Your task to perform on an android device: toggle notifications settings in the gmail app Image 0: 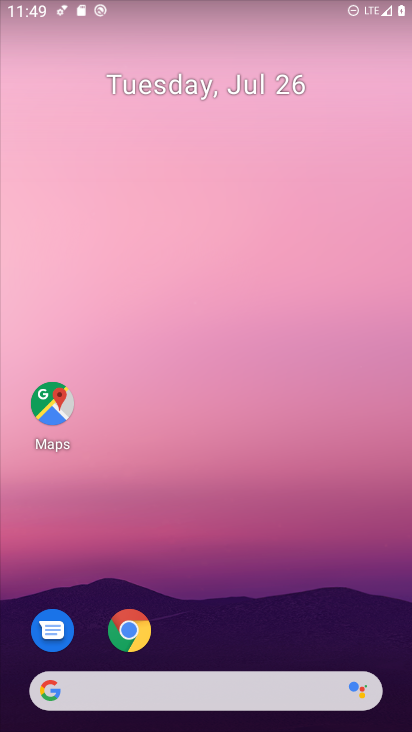
Step 0: drag from (386, 644) to (325, 111)
Your task to perform on an android device: toggle notifications settings in the gmail app Image 1: 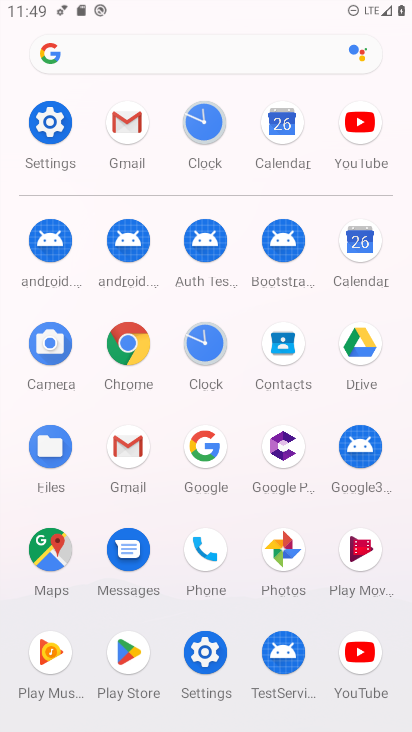
Step 1: click (128, 447)
Your task to perform on an android device: toggle notifications settings in the gmail app Image 2: 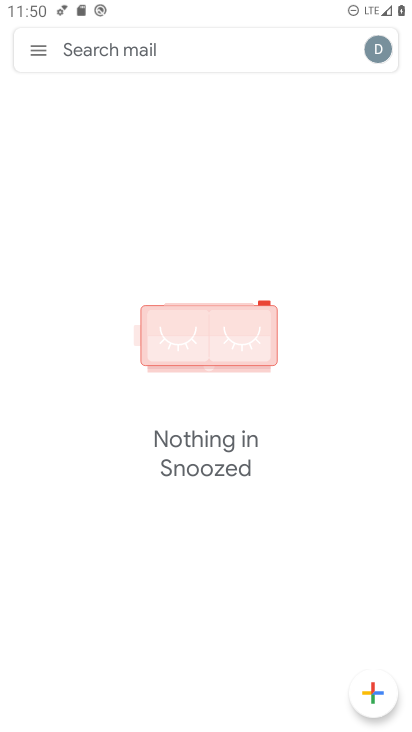
Step 2: click (37, 51)
Your task to perform on an android device: toggle notifications settings in the gmail app Image 3: 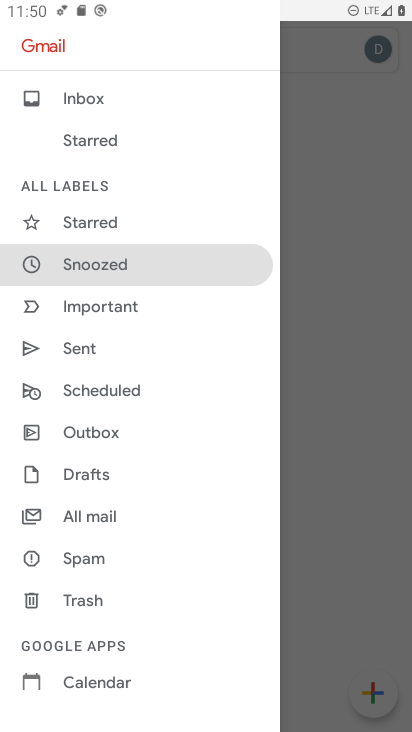
Step 3: drag from (165, 649) to (170, 336)
Your task to perform on an android device: toggle notifications settings in the gmail app Image 4: 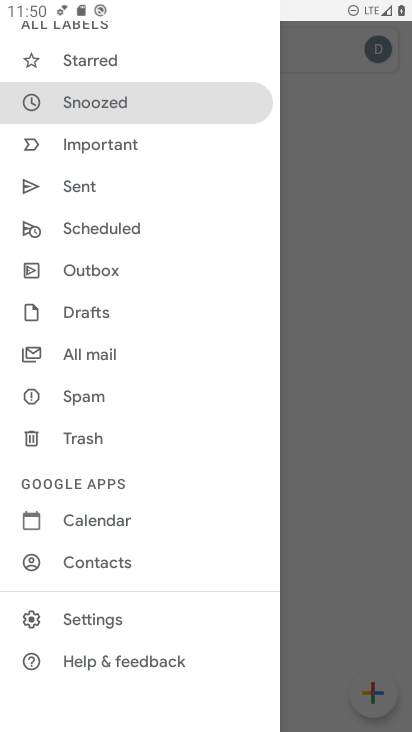
Step 4: click (95, 616)
Your task to perform on an android device: toggle notifications settings in the gmail app Image 5: 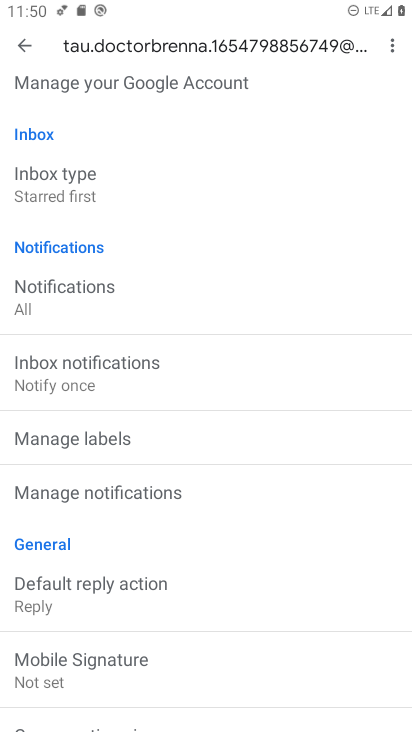
Step 5: click (87, 493)
Your task to perform on an android device: toggle notifications settings in the gmail app Image 6: 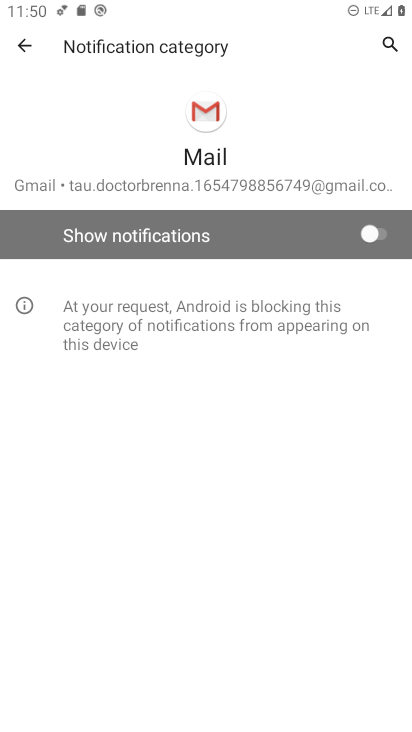
Step 6: click (380, 233)
Your task to perform on an android device: toggle notifications settings in the gmail app Image 7: 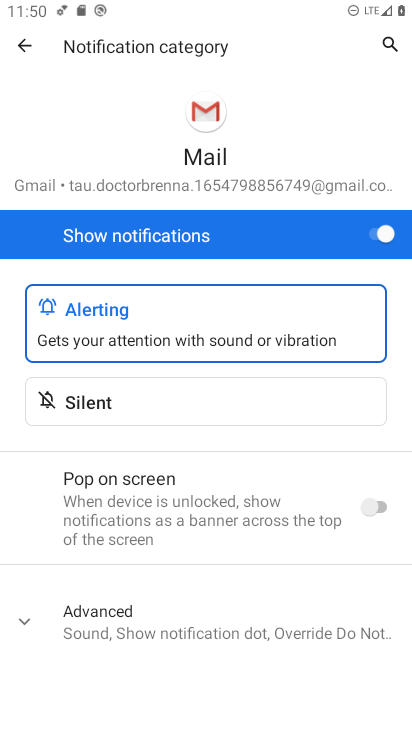
Step 7: task complete